Your task to perform on an android device: Toggle the flashlight Image 0: 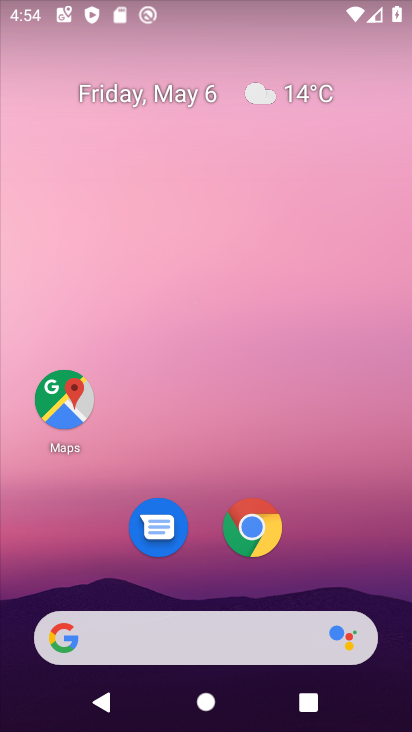
Step 0: drag from (329, 564) to (365, 22)
Your task to perform on an android device: Toggle the flashlight Image 1: 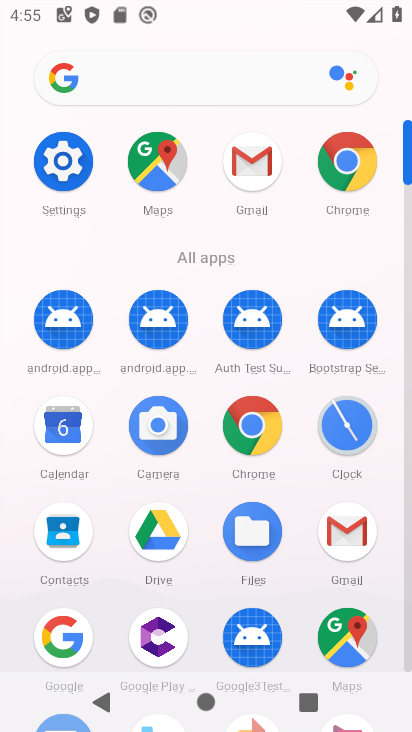
Step 1: click (71, 158)
Your task to perform on an android device: Toggle the flashlight Image 2: 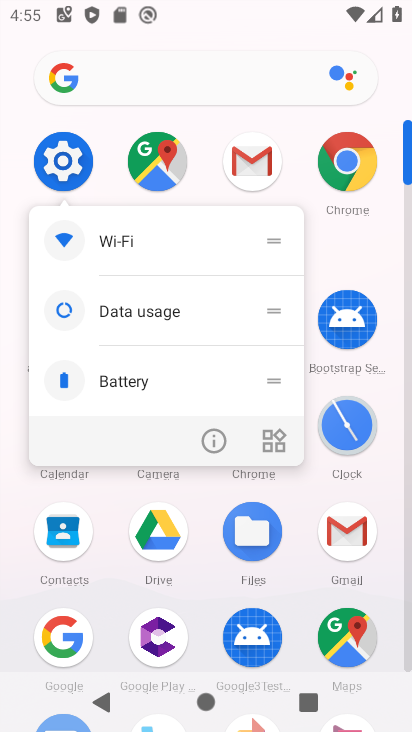
Step 2: click (71, 156)
Your task to perform on an android device: Toggle the flashlight Image 3: 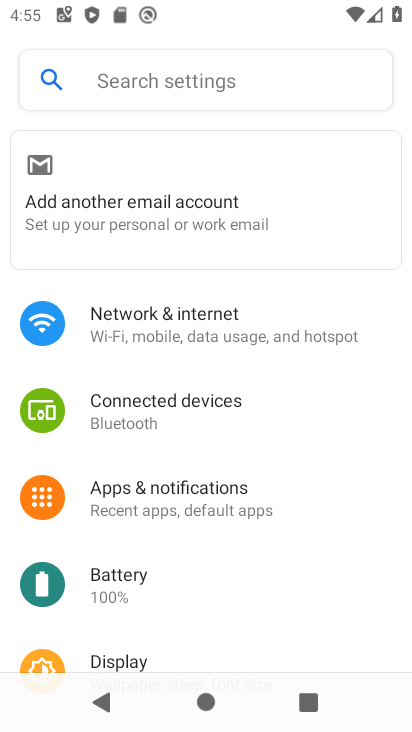
Step 3: task complete